Your task to perform on an android device: open app "Duolingo: language lessons" Image 0: 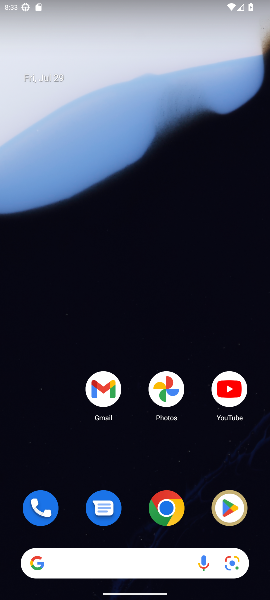
Step 0: drag from (157, 568) to (148, 5)
Your task to perform on an android device: open app "Duolingo: language lessons" Image 1: 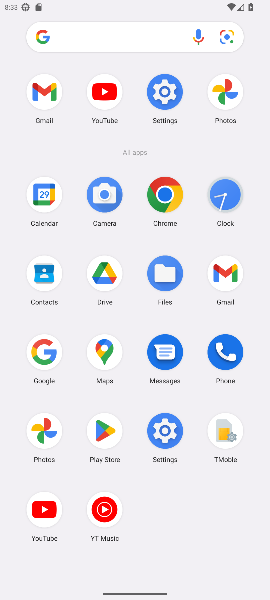
Step 1: click (95, 425)
Your task to perform on an android device: open app "Duolingo: language lessons" Image 2: 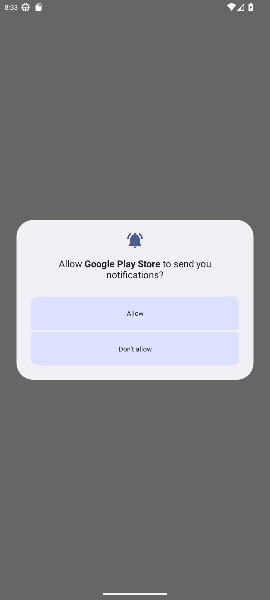
Step 2: click (150, 352)
Your task to perform on an android device: open app "Duolingo: language lessons" Image 3: 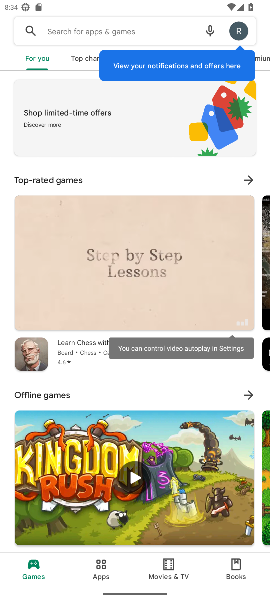
Step 3: click (125, 23)
Your task to perform on an android device: open app "Duolingo: language lessons" Image 4: 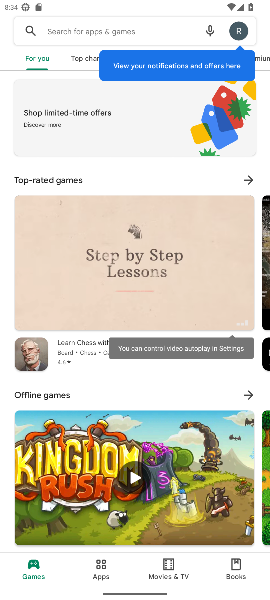
Step 4: click (125, 23)
Your task to perform on an android device: open app "Duolingo: language lessons" Image 5: 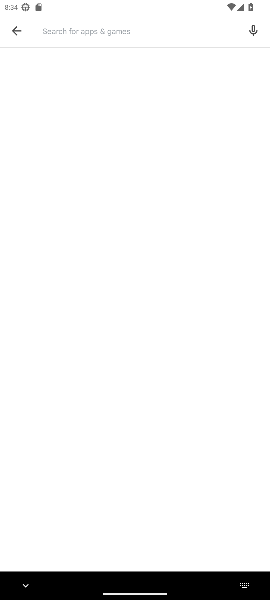
Step 5: type "duolinga: language lessons"
Your task to perform on an android device: open app "Duolingo: language lessons" Image 6: 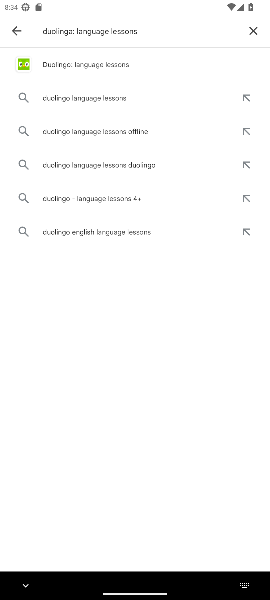
Step 6: click (111, 61)
Your task to perform on an android device: open app "Duolingo: language lessons" Image 7: 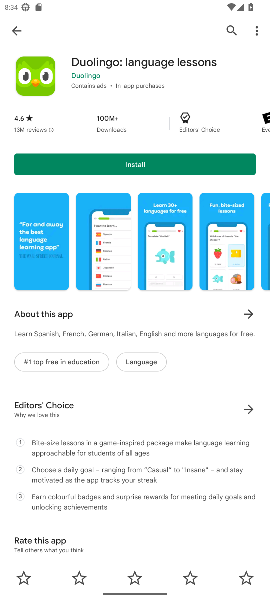
Step 7: task complete